Your task to perform on an android device: visit the assistant section in the google photos Image 0: 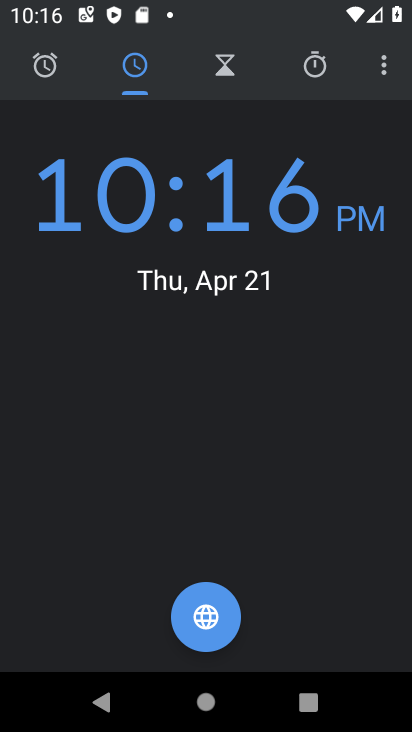
Step 0: press home button
Your task to perform on an android device: visit the assistant section in the google photos Image 1: 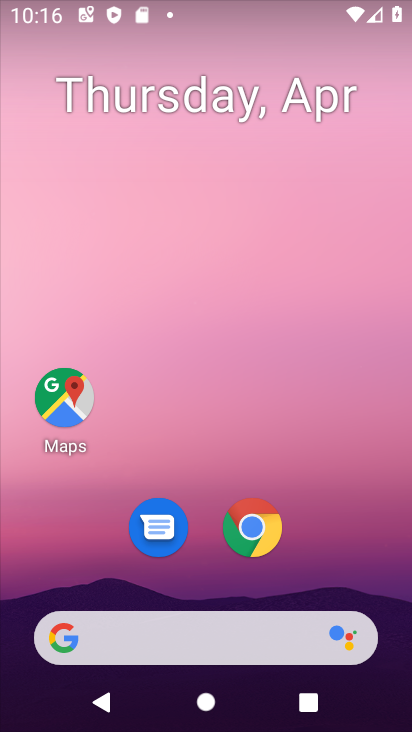
Step 1: drag from (349, 542) to (374, 8)
Your task to perform on an android device: visit the assistant section in the google photos Image 2: 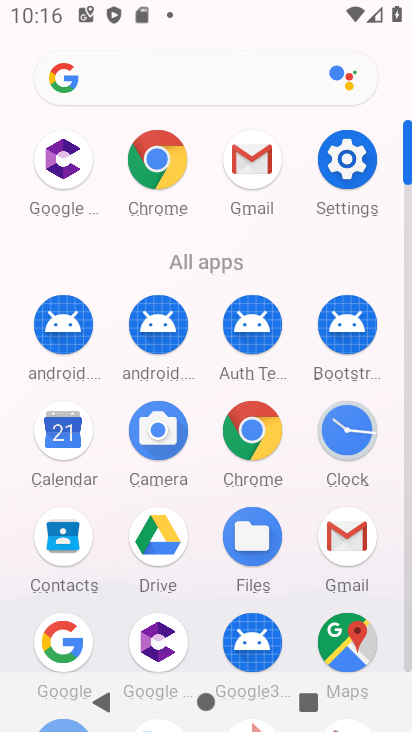
Step 2: drag from (385, 578) to (411, 155)
Your task to perform on an android device: visit the assistant section in the google photos Image 3: 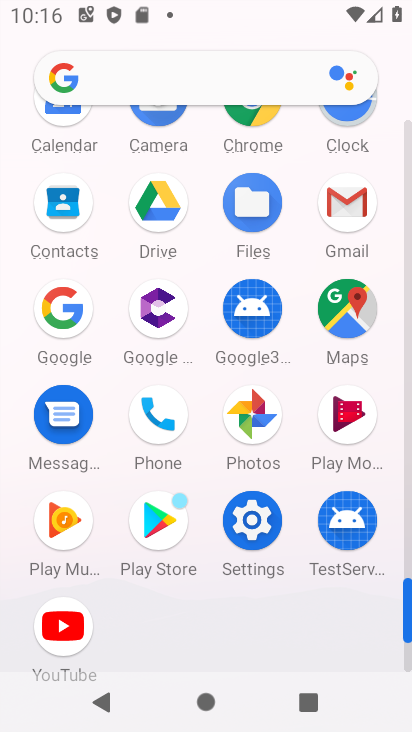
Step 3: click (253, 415)
Your task to perform on an android device: visit the assistant section in the google photos Image 4: 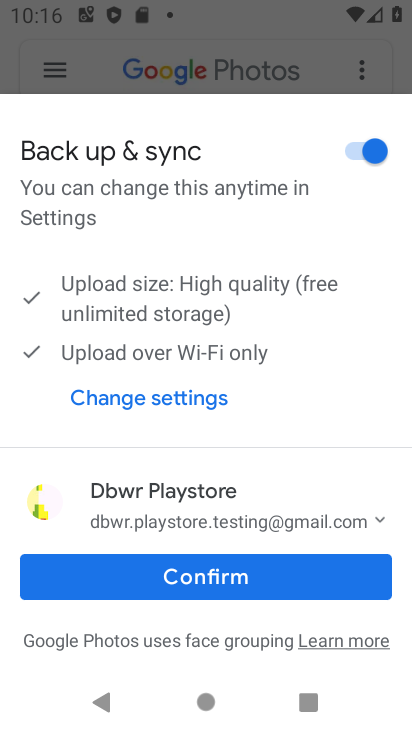
Step 4: click (234, 587)
Your task to perform on an android device: visit the assistant section in the google photos Image 5: 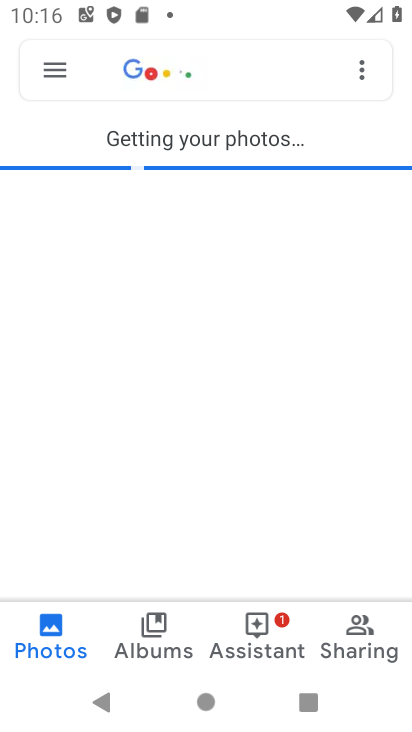
Step 5: click (258, 638)
Your task to perform on an android device: visit the assistant section in the google photos Image 6: 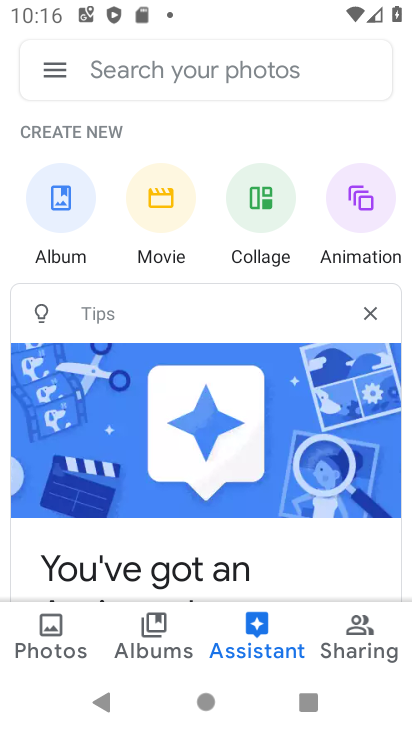
Step 6: task complete